Your task to perform on an android device: empty trash in the gmail app Image 0: 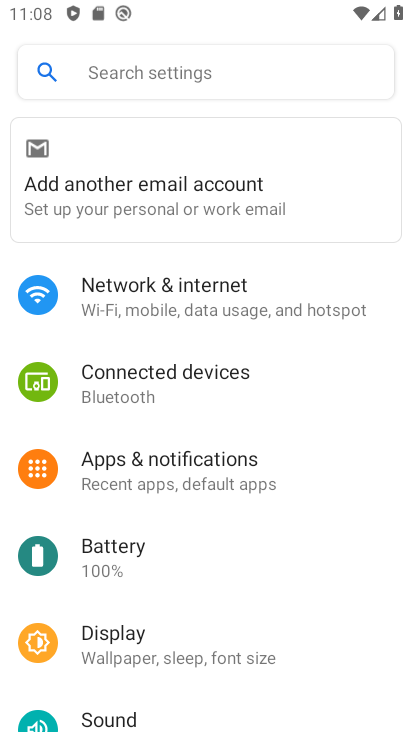
Step 0: press home button
Your task to perform on an android device: empty trash in the gmail app Image 1: 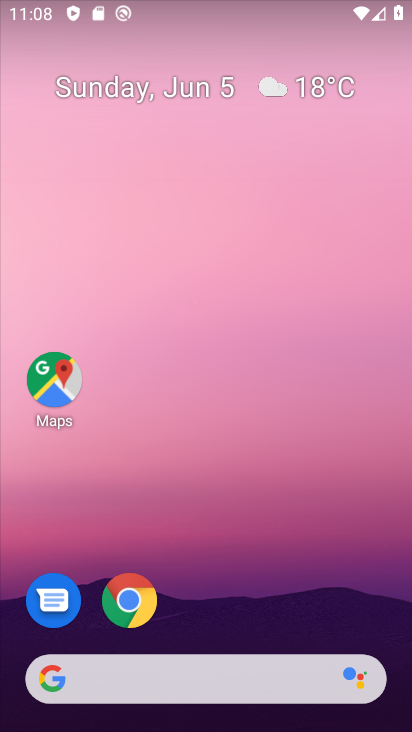
Step 1: drag from (209, 620) to (297, 55)
Your task to perform on an android device: empty trash in the gmail app Image 2: 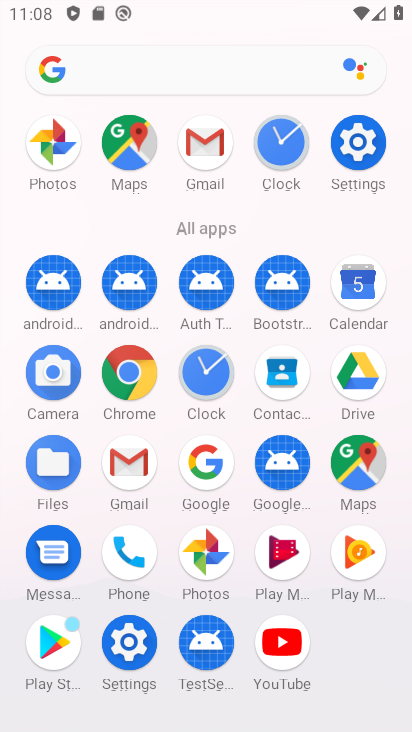
Step 2: click (120, 458)
Your task to perform on an android device: empty trash in the gmail app Image 3: 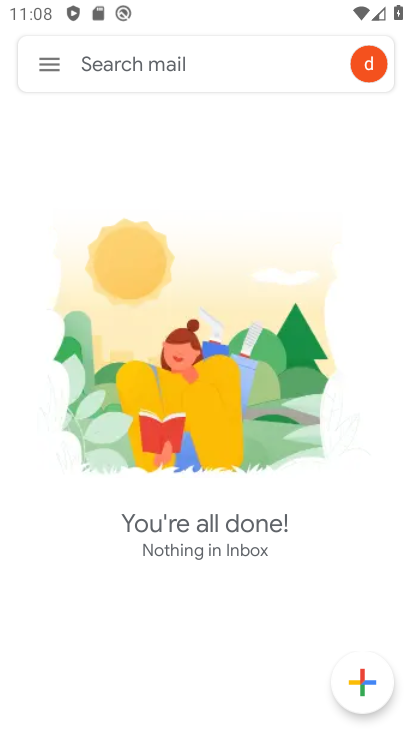
Step 3: click (71, 75)
Your task to perform on an android device: empty trash in the gmail app Image 4: 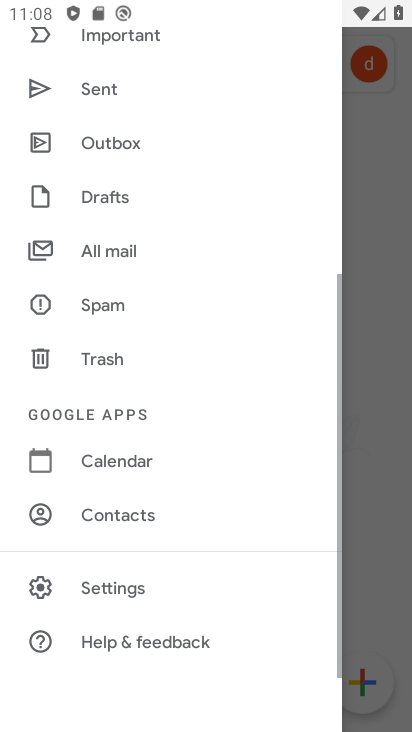
Step 4: drag from (133, 574) to (179, 484)
Your task to perform on an android device: empty trash in the gmail app Image 5: 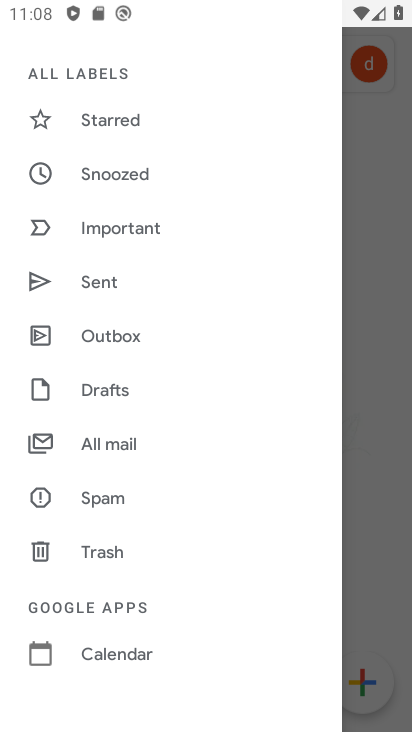
Step 5: click (122, 551)
Your task to perform on an android device: empty trash in the gmail app Image 6: 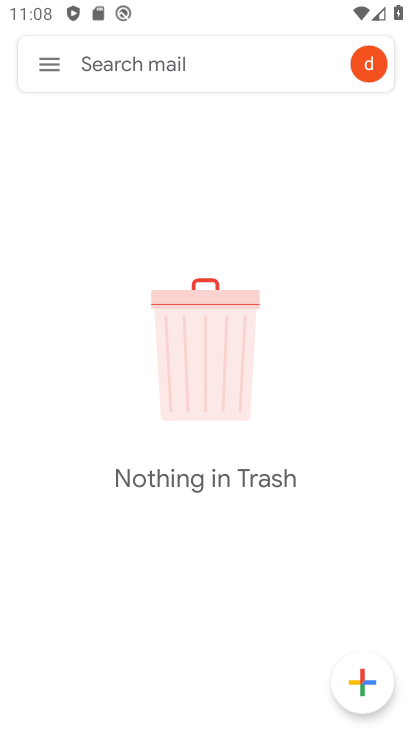
Step 6: task complete